Your task to perform on an android device: change the clock display to show seconds Image 0: 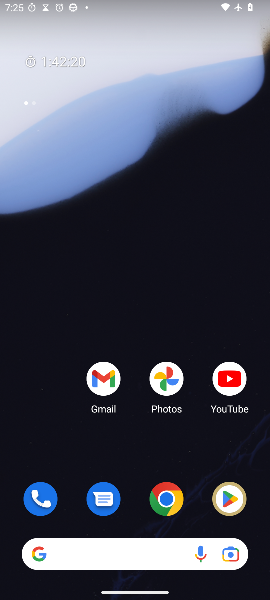
Step 0: drag from (126, 505) to (180, 111)
Your task to perform on an android device: change the clock display to show seconds Image 1: 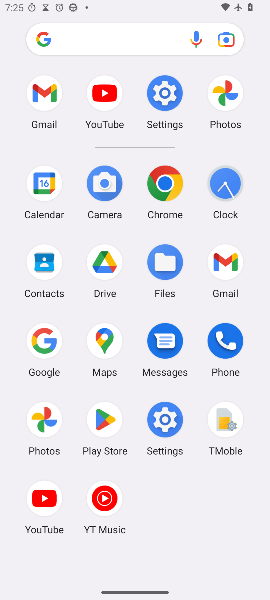
Step 1: click (224, 193)
Your task to perform on an android device: change the clock display to show seconds Image 2: 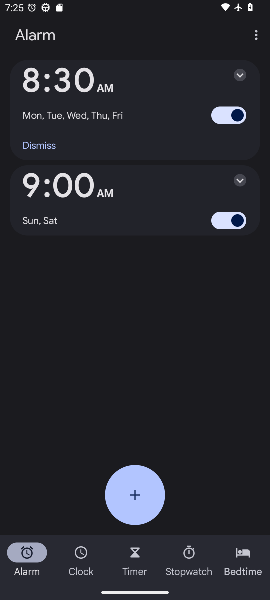
Step 2: click (251, 39)
Your task to perform on an android device: change the clock display to show seconds Image 3: 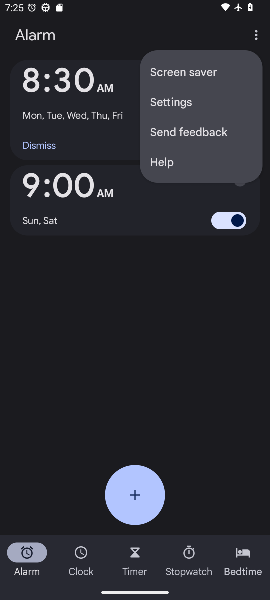
Step 3: click (163, 112)
Your task to perform on an android device: change the clock display to show seconds Image 4: 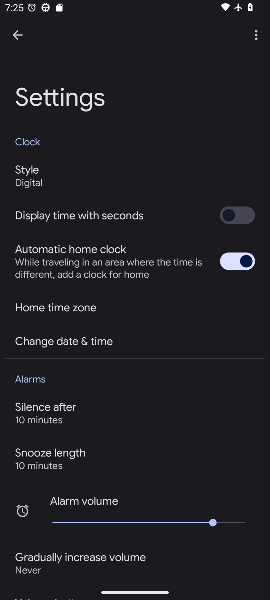
Step 4: click (43, 172)
Your task to perform on an android device: change the clock display to show seconds Image 5: 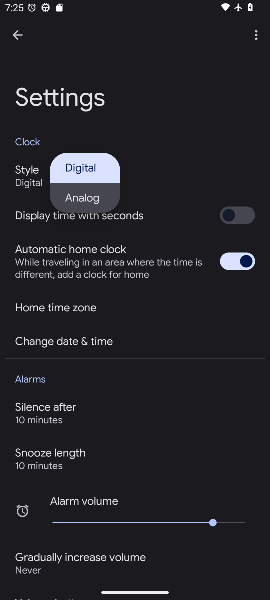
Step 5: click (184, 148)
Your task to perform on an android device: change the clock display to show seconds Image 6: 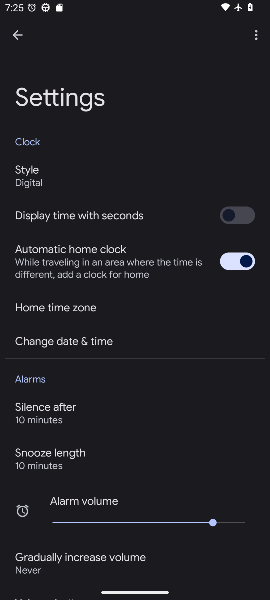
Step 6: click (251, 220)
Your task to perform on an android device: change the clock display to show seconds Image 7: 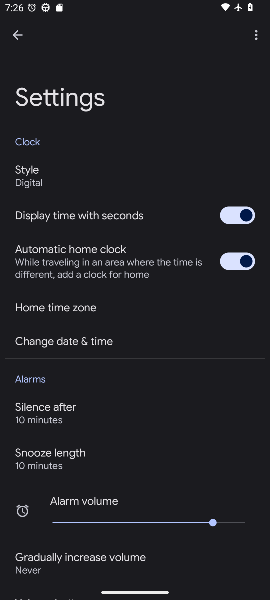
Step 7: task complete